Your task to perform on an android device: change the clock display to show seconds Image 0: 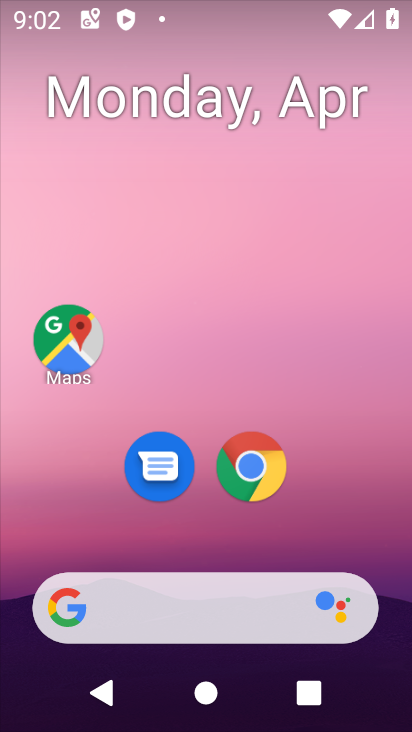
Step 0: drag from (197, 541) to (281, 67)
Your task to perform on an android device: change the clock display to show seconds Image 1: 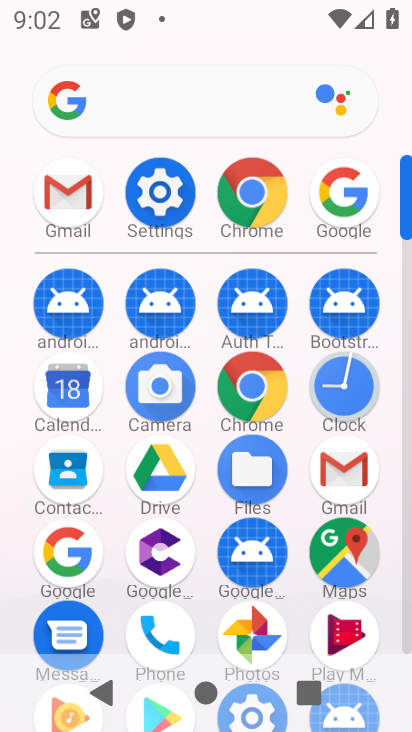
Step 1: click (361, 418)
Your task to perform on an android device: change the clock display to show seconds Image 2: 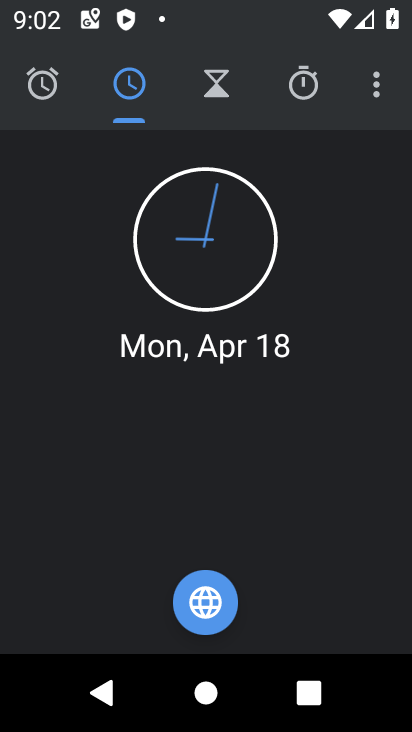
Step 2: click (391, 87)
Your task to perform on an android device: change the clock display to show seconds Image 3: 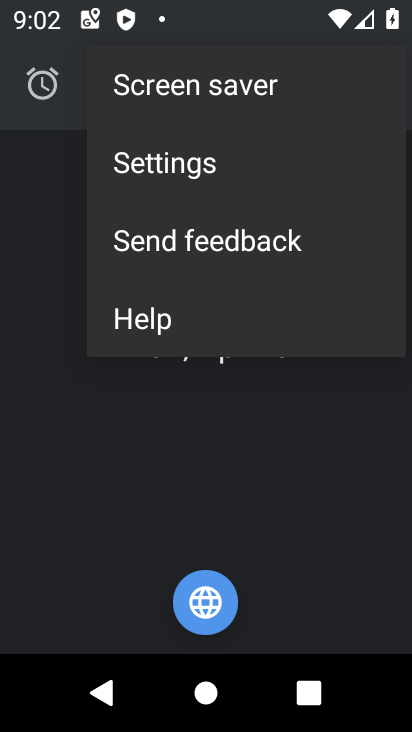
Step 3: click (175, 153)
Your task to perform on an android device: change the clock display to show seconds Image 4: 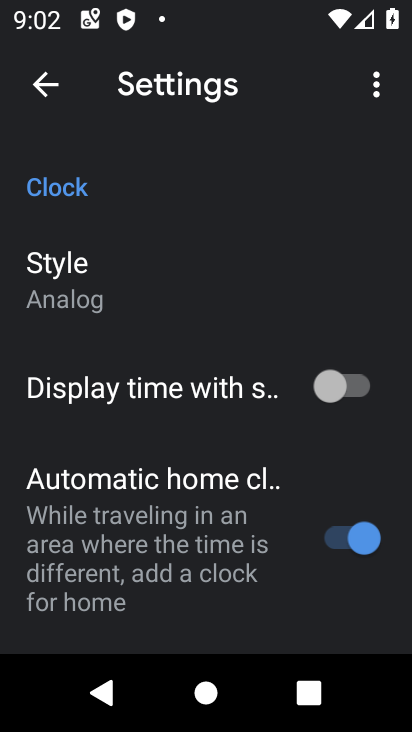
Step 4: click (333, 396)
Your task to perform on an android device: change the clock display to show seconds Image 5: 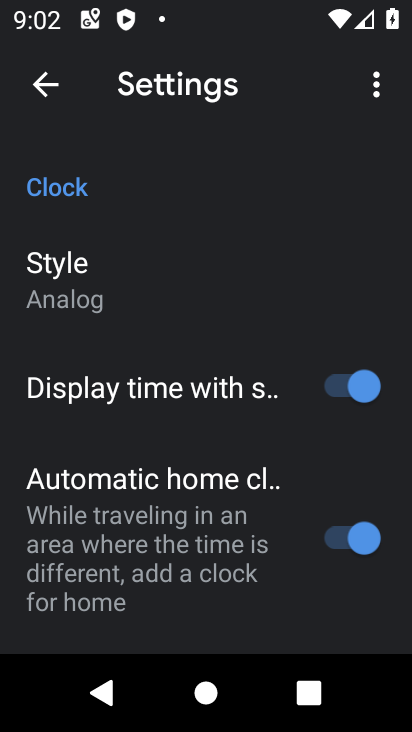
Step 5: task complete